Your task to perform on an android device: Go to battery settings Image 0: 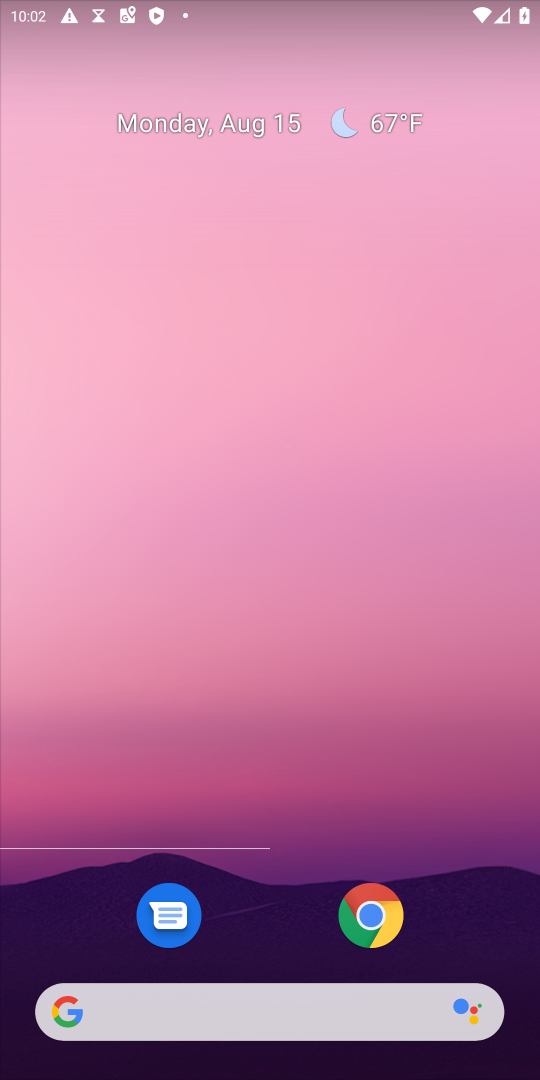
Step 0: press home button
Your task to perform on an android device: Go to battery settings Image 1: 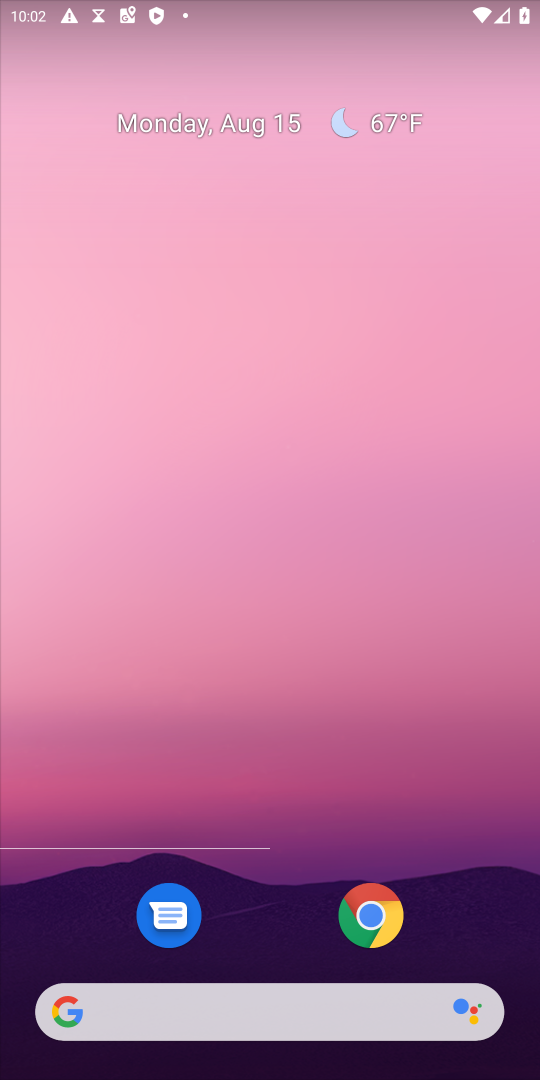
Step 1: drag from (286, 946) to (164, 258)
Your task to perform on an android device: Go to battery settings Image 2: 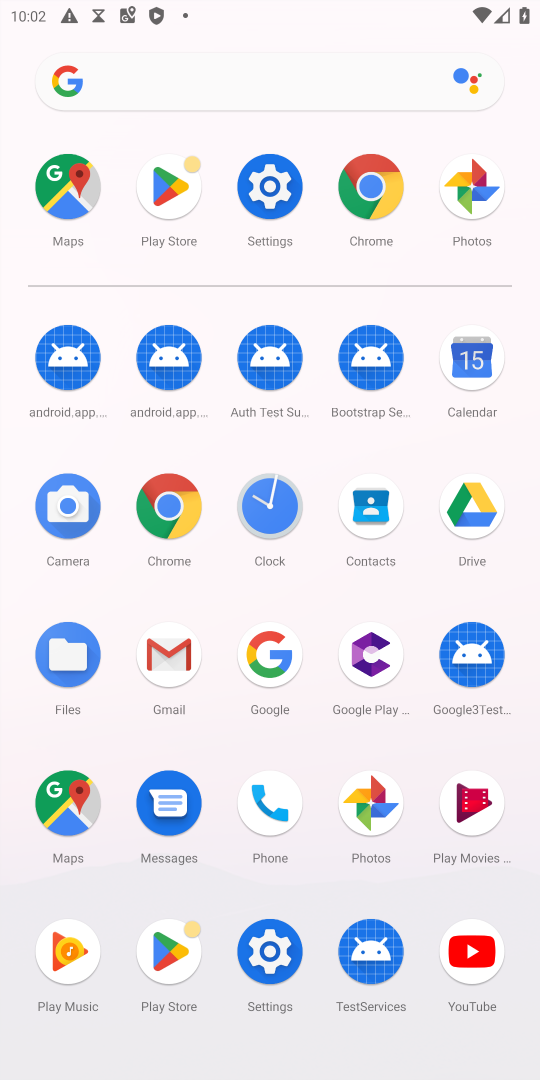
Step 2: click (247, 188)
Your task to perform on an android device: Go to battery settings Image 3: 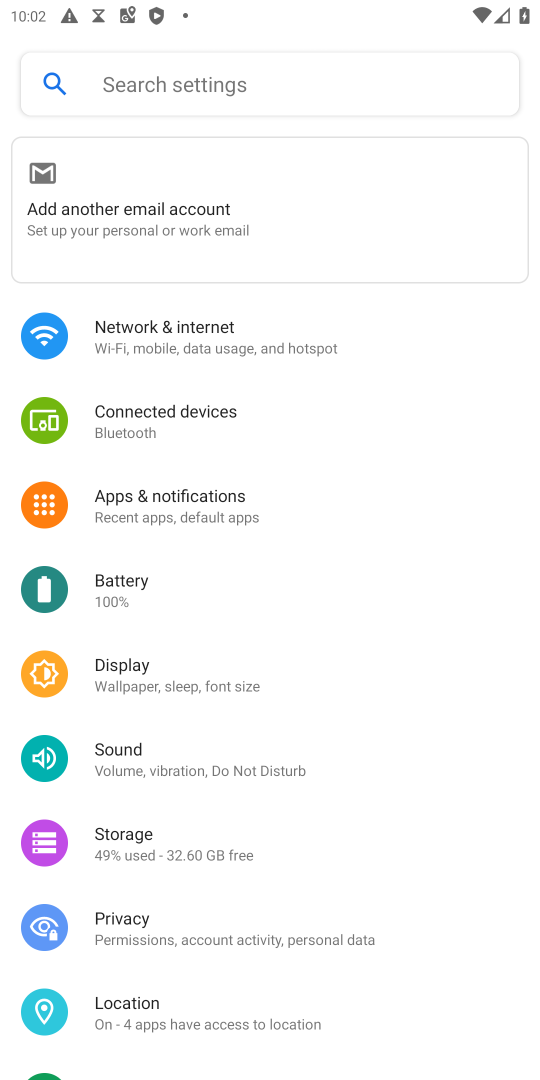
Step 3: click (135, 590)
Your task to perform on an android device: Go to battery settings Image 4: 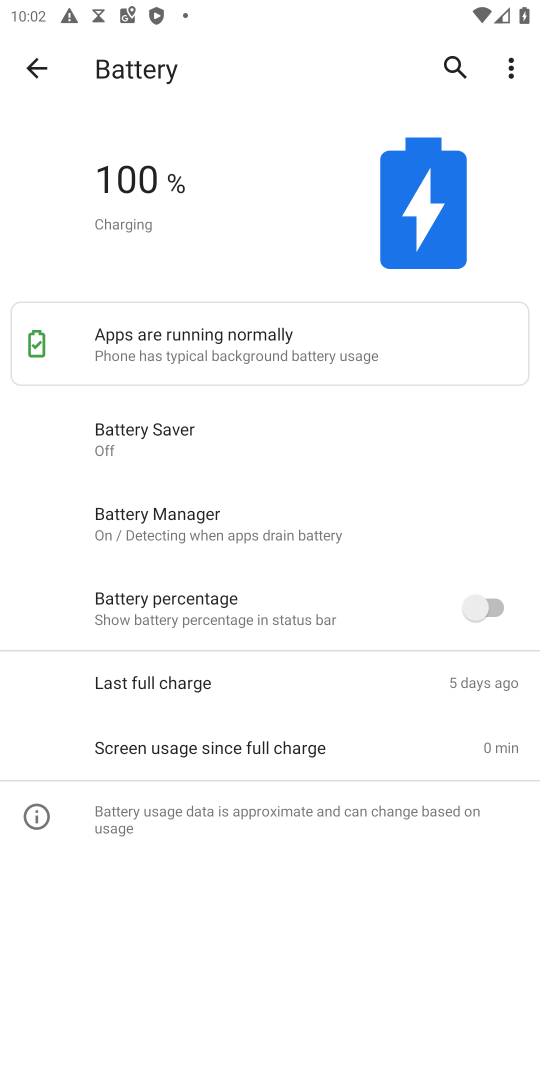
Step 4: task complete